Your task to perform on an android device: allow notifications from all sites in the chrome app Image 0: 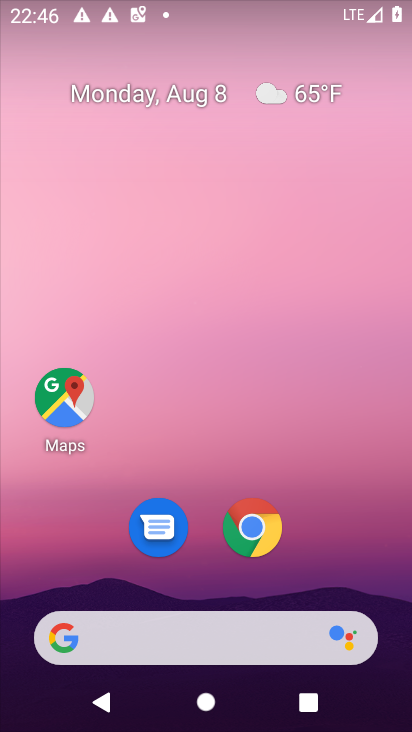
Step 0: click (242, 529)
Your task to perform on an android device: allow notifications from all sites in the chrome app Image 1: 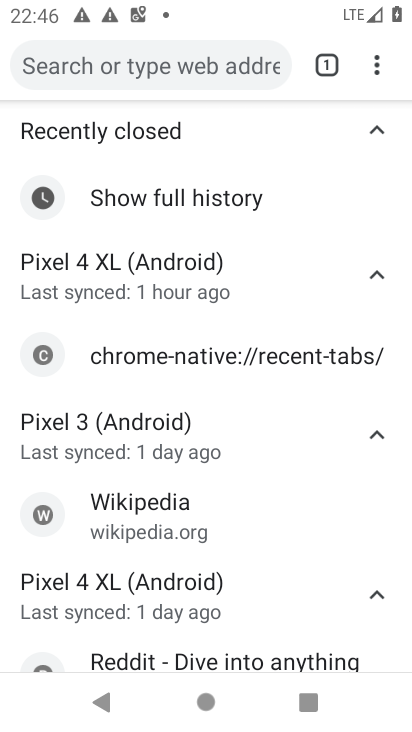
Step 1: click (251, 64)
Your task to perform on an android device: allow notifications from all sites in the chrome app Image 2: 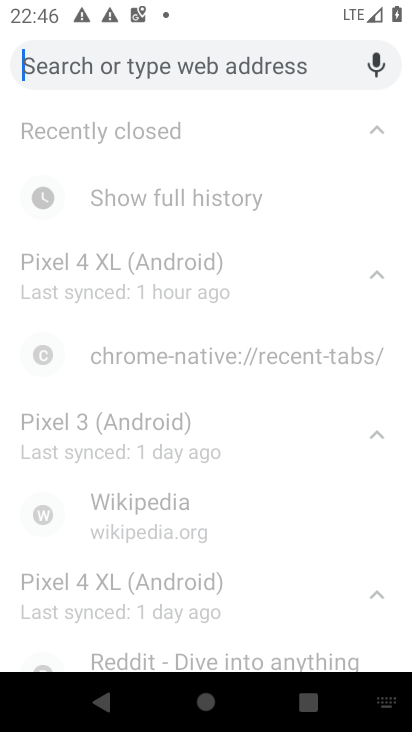
Step 2: press back button
Your task to perform on an android device: allow notifications from all sites in the chrome app Image 3: 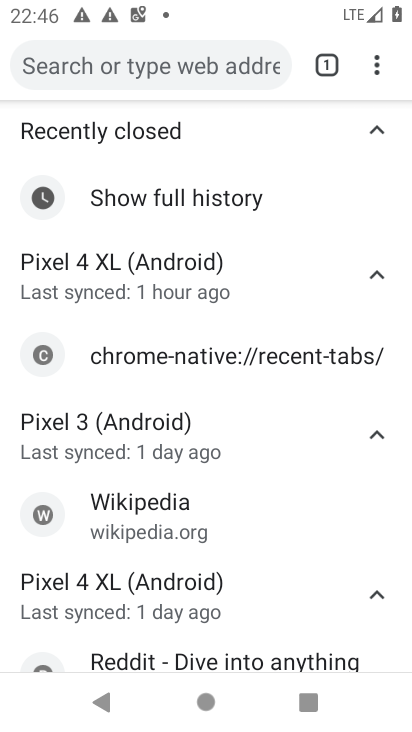
Step 3: click (374, 61)
Your task to perform on an android device: allow notifications from all sites in the chrome app Image 4: 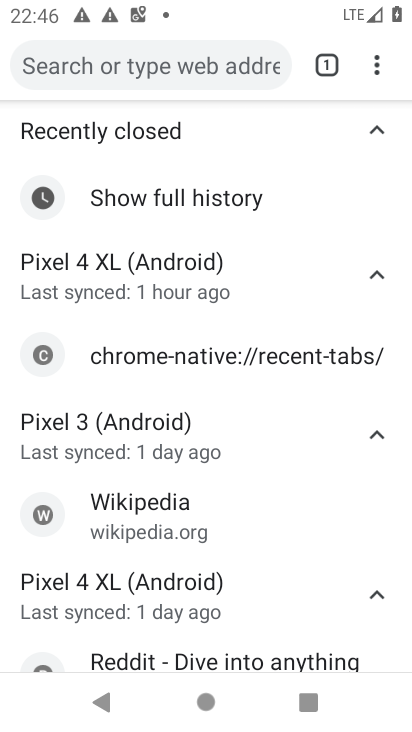
Step 4: click (374, 62)
Your task to perform on an android device: allow notifications from all sites in the chrome app Image 5: 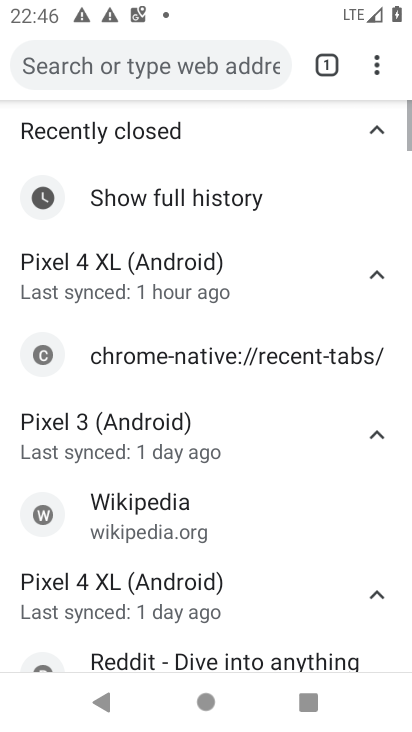
Step 5: click (374, 62)
Your task to perform on an android device: allow notifications from all sites in the chrome app Image 6: 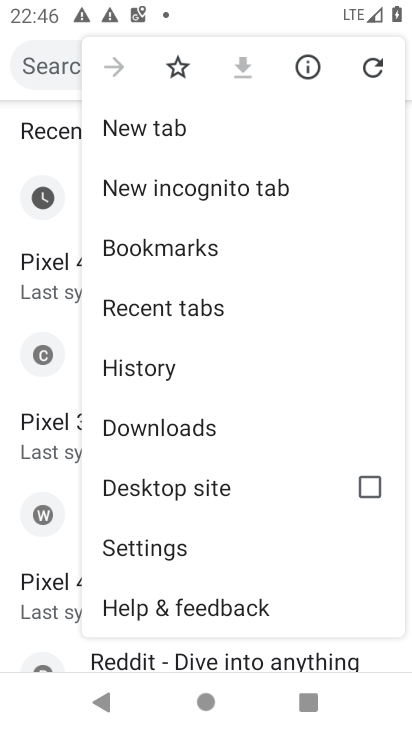
Step 6: click (138, 543)
Your task to perform on an android device: allow notifications from all sites in the chrome app Image 7: 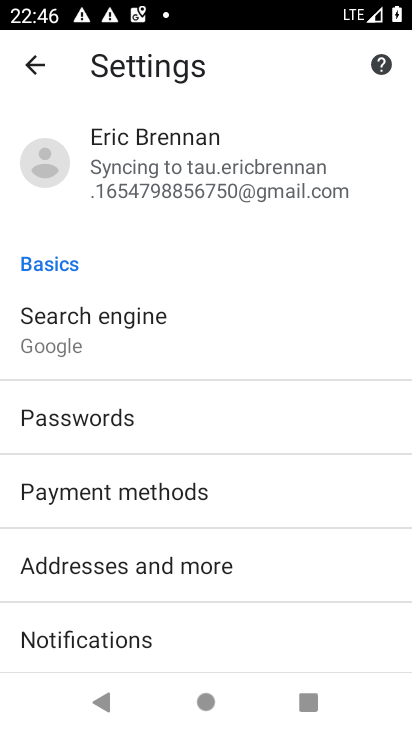
Step 7: drag from (233, 619) to (266, 377)
Your task to perform on an android device: allow notifications from all sites in the chrome app Image 8: 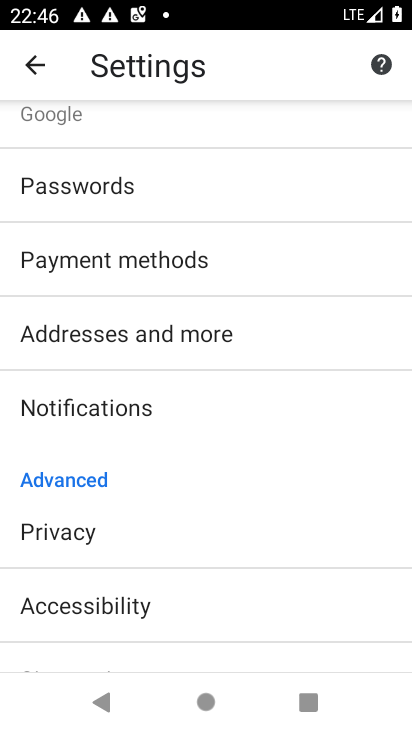
Step 8: drag from (173, 562) to (183, 396)
Your task to perform on an android device: allow notifications from all sites in the chrome app Image 9: 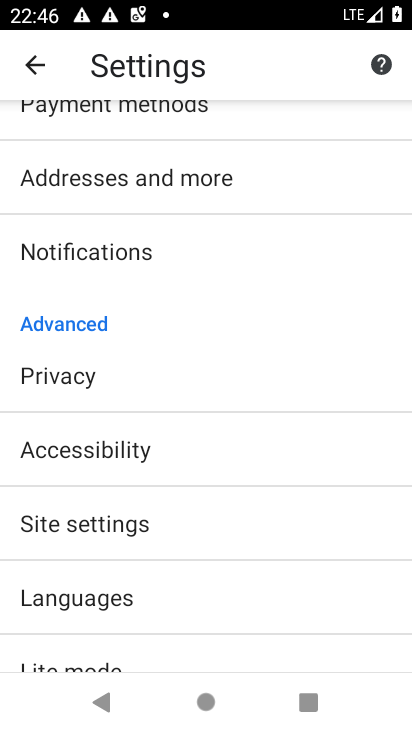
Step 9: click (72, 528)
Your task to perform on an android device: allow notifications from all sites in the chrome app Image 10: 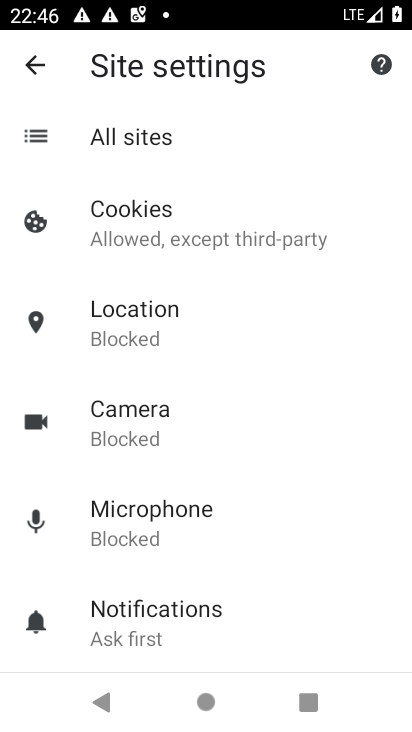
Step 10: click (123, 614)
Your task to perform on an android device: allow notifications from all sites in the chrome app Image 11: 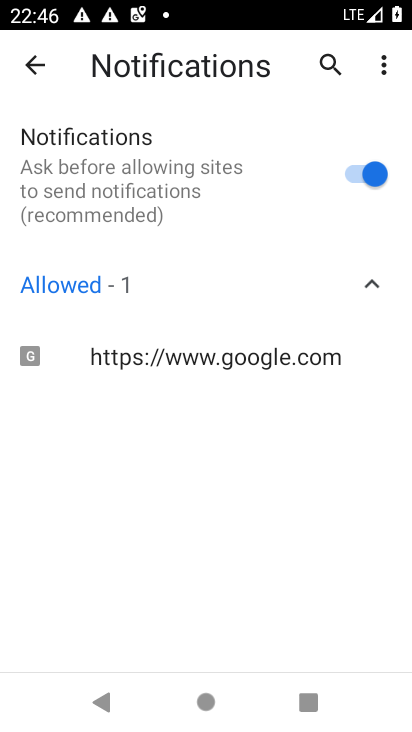
Step 11: task complete